Your task to perform on an android device: Open Google Maps Image 0: 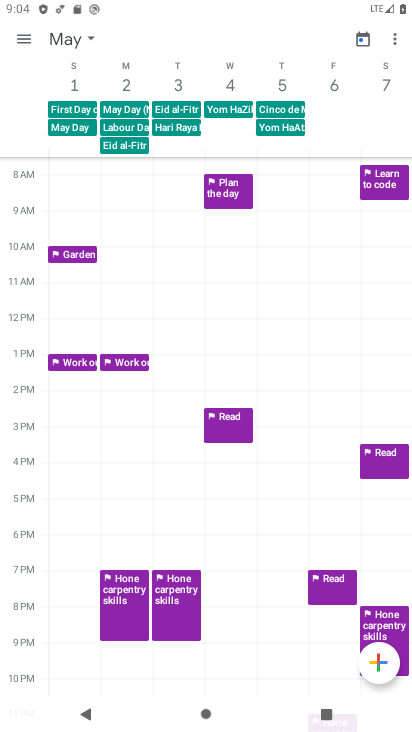
Step 0: press home button
Your task to perform on an android device: Open Google Maps Image 1: 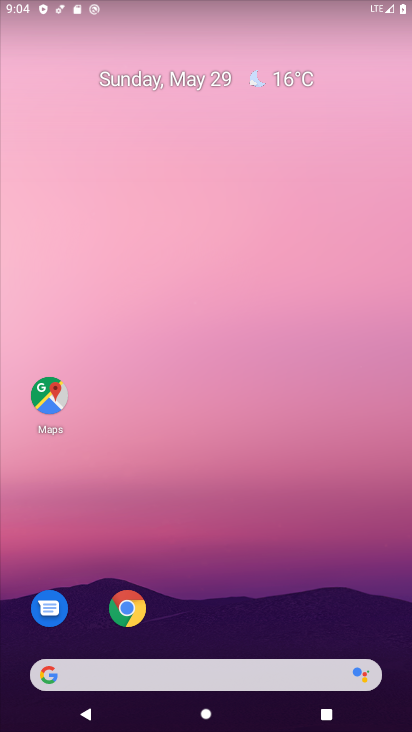
Step 1: click (43, 385)
Your task to perform on an android device: Open Google Maps Image 2: 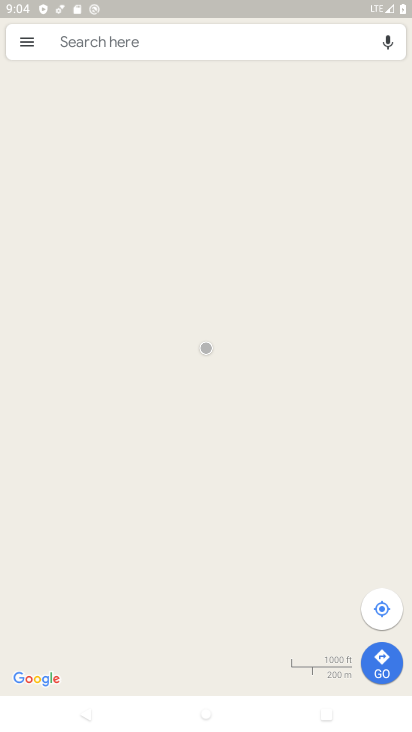
Step 2: task complete